Your task to perform on an android device: toggle sleep mode Image 0: 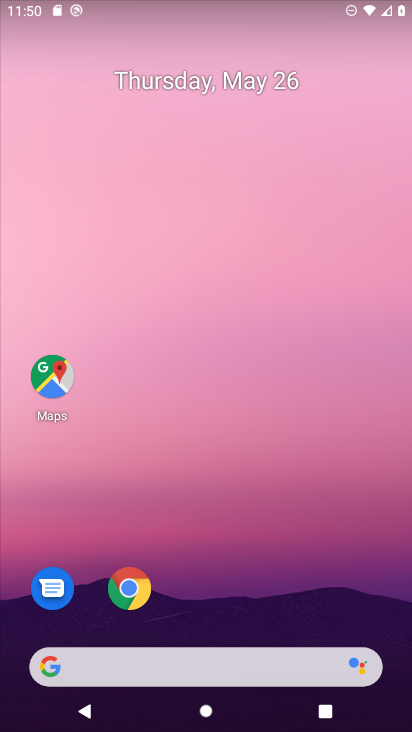
Step 0: drag from (347, 602) to (331, 13)
Your task to perform on an android device: toggle sleep mode Image 1: 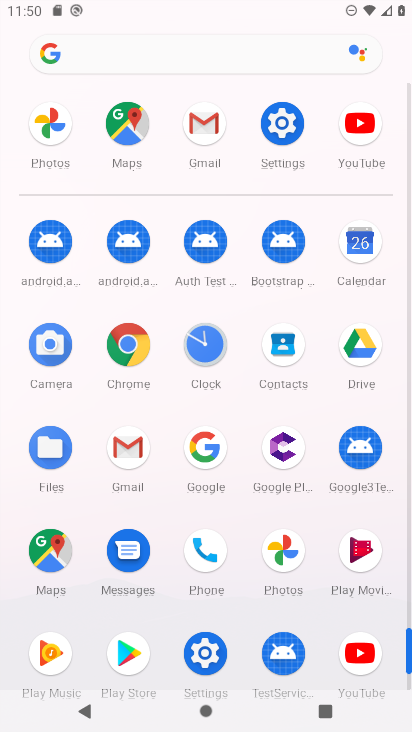
Step 1: click (206, 654)
Your task to perform on an android device: toggle sleep mode Image 2: 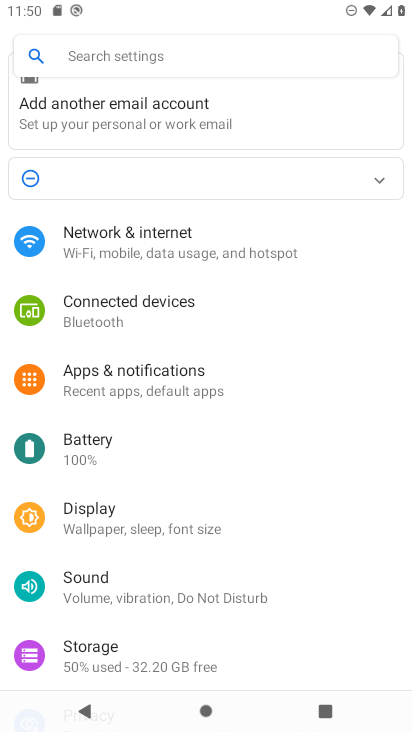
Step 2: click (100, 515)
Your task to perform on an android device: toggle sleep mode Image 3: 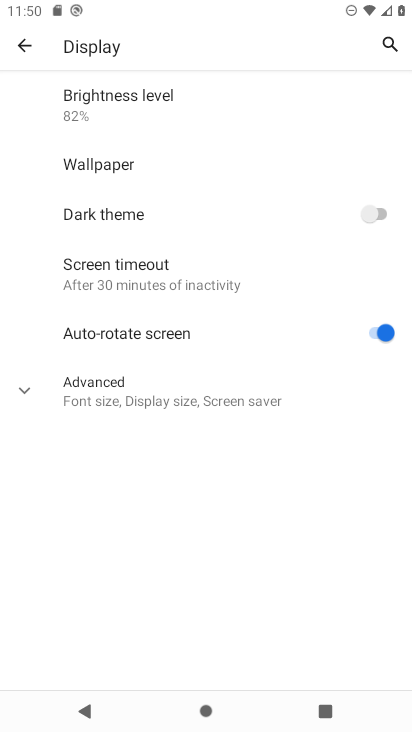
Step 3: click (27, 383)
Your task to perform on an android device: toggle sleep mode Image 4: 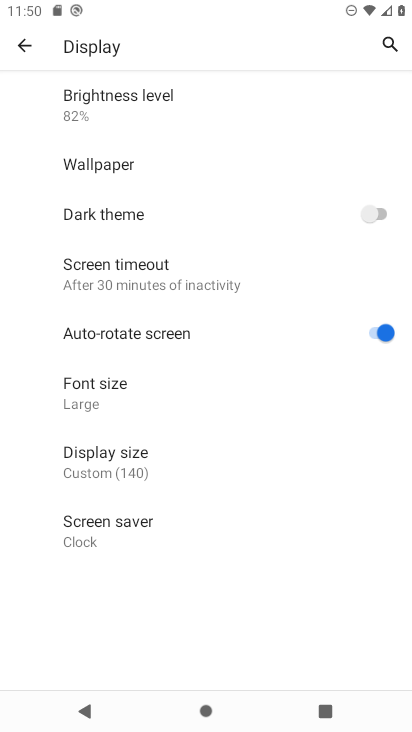
Step 4: task complete